Your task to perform on an android device: Search for pizza restaurants on Maps Image 0: 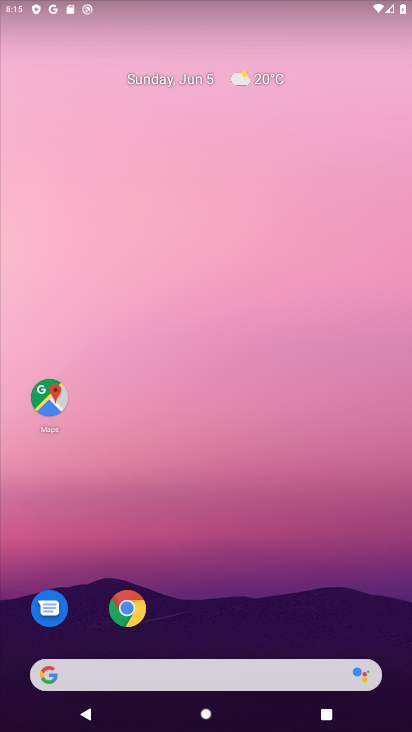
Step 0: click (45, 405)
Your task to perform on an android device: Search for pizza restaurants on Maps Image 1: 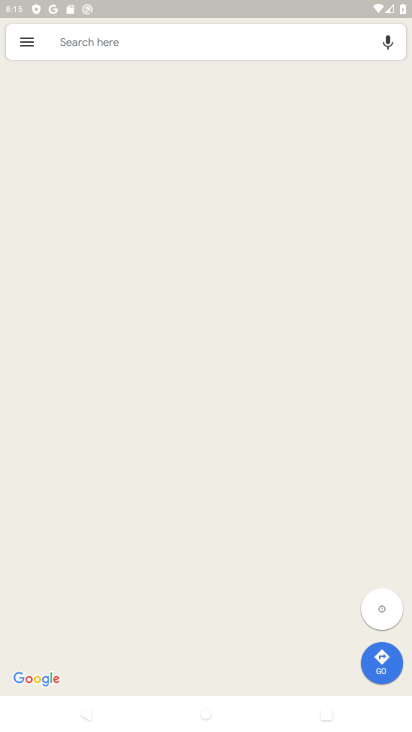
Step 1: click (232, 43)
Your task to perform on an android device: Search for pizza restaurants on Maps Image 2: 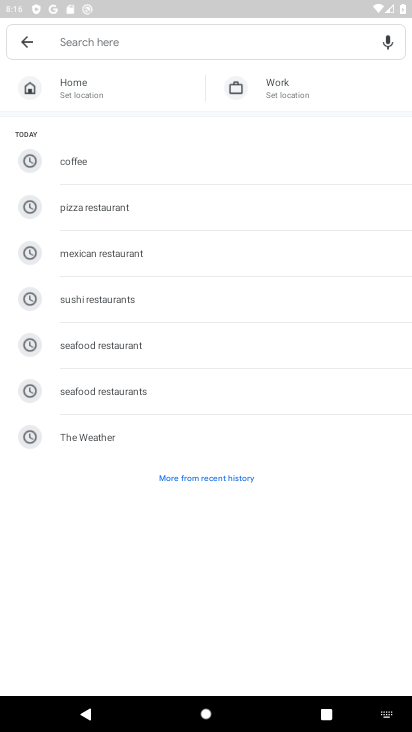
Step 2: click (103, 214)
Your task to perform on an android device: Search for pizza restaurants on Maps Image 3: 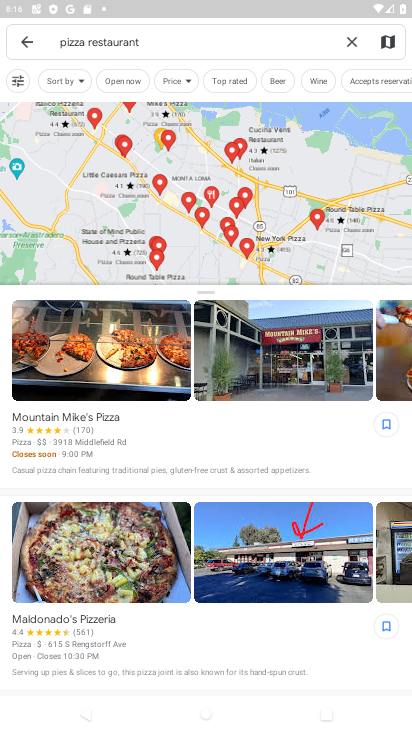
Step 3: task complete